Your task to perform on an android device: change text size in settings app Image 0: 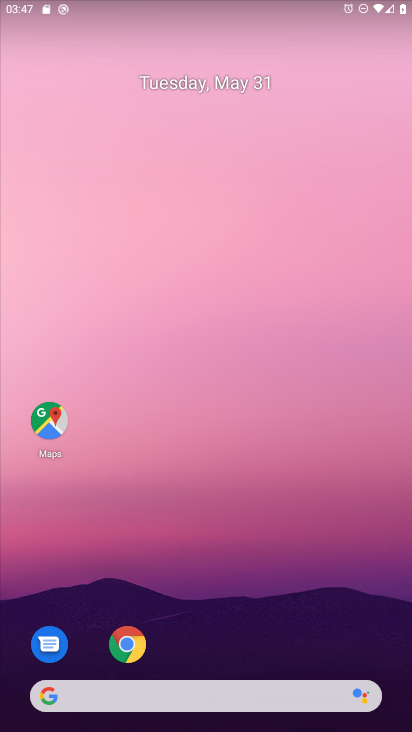
Step 0: drag from (247, 582) to (259, 150)
Your task to perform on an android device: change text size in settings app Image 1: 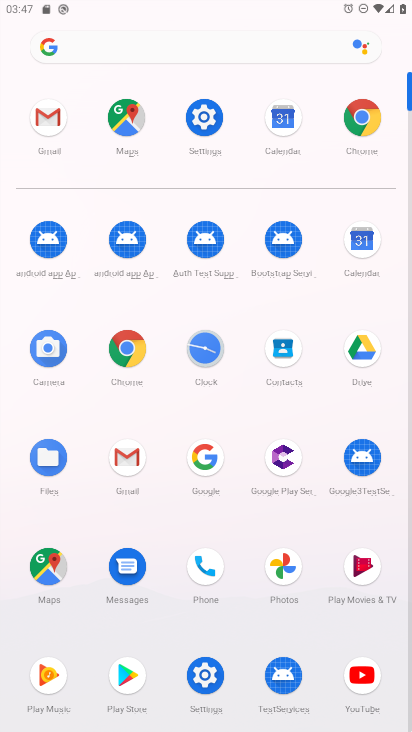
Step 1: click (210, 114)
Your task to perform on an android device: change text size in settings app Image 2: 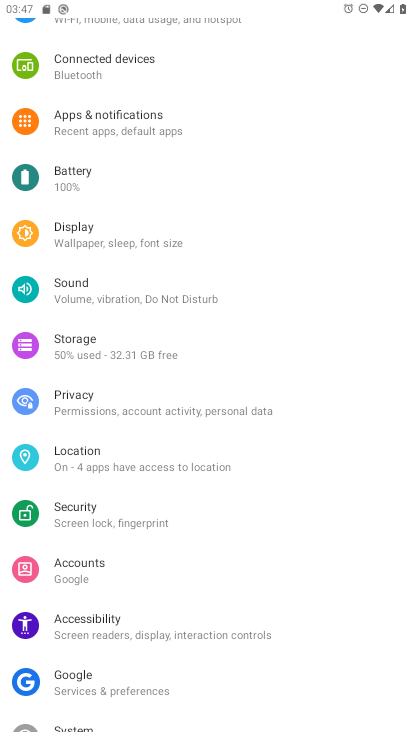
Step 2: drag from (211, 590) to (298, 177)
Your task to perform on an android device: change text size in settings app Image 3: 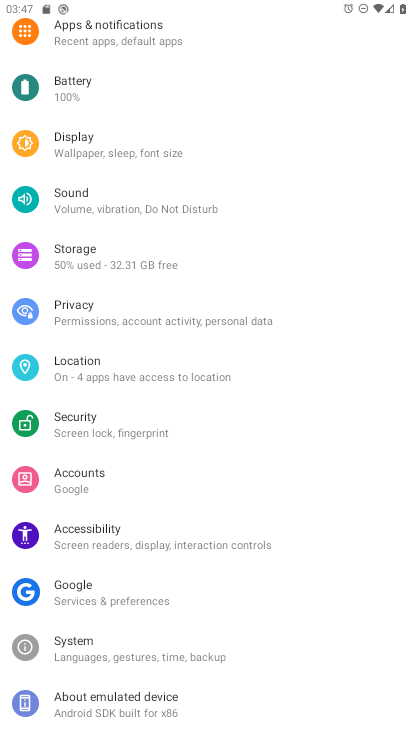
Step 3: drag from (220, 247) to (228, 566)
Your task to perform on an android device: change text size in settings app Image 4: 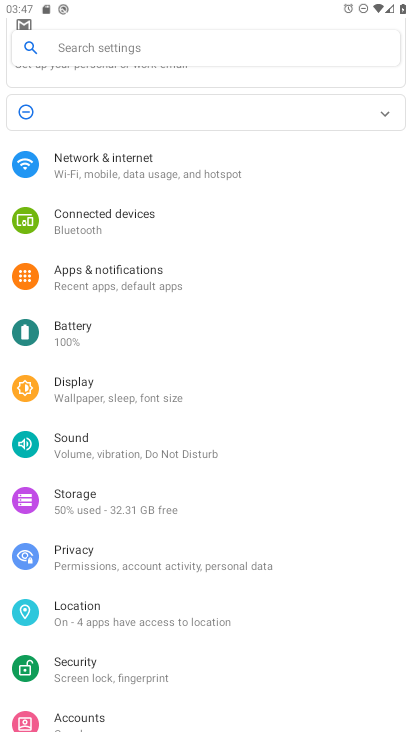
Step 4: click (139, 394)
Your task to perform on an android device: change text size in settings app Image 5: 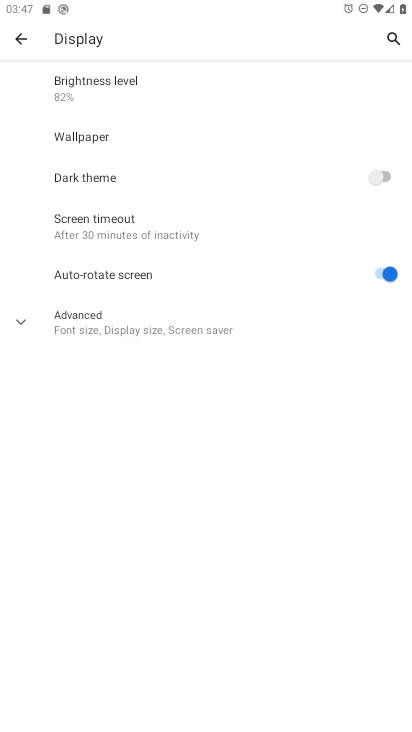
Step 5: click (98, 319)
Your task to perform on an android device: change text size in settings app Image 6: 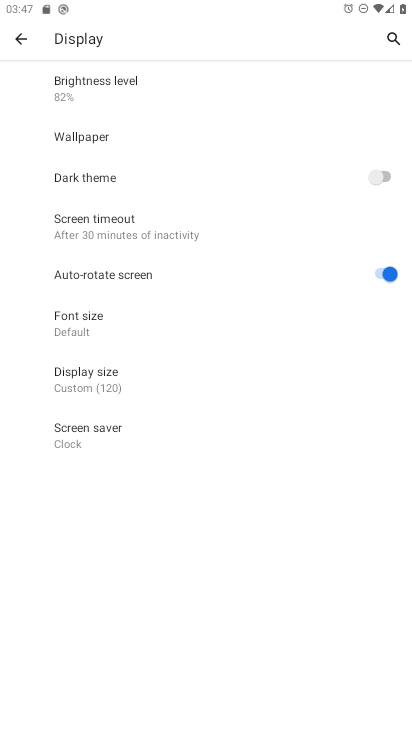
Step 6: click (90, 322)
Your task to perform on an android device: change text size in settings app Image 7: 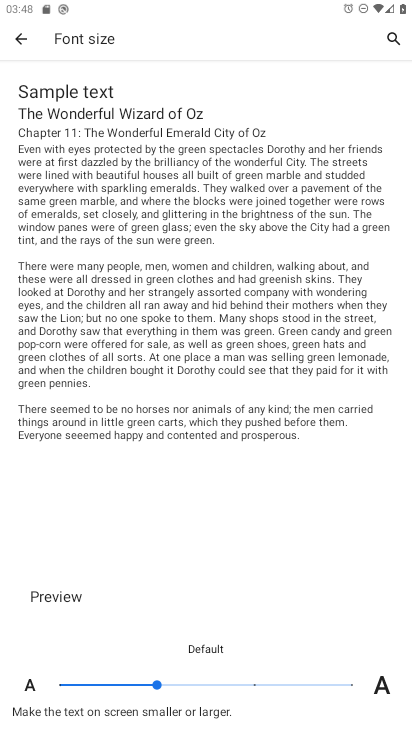
Step 7: click (76, 685)
Your task to perform on an android device: change text size in settings app Image 8: 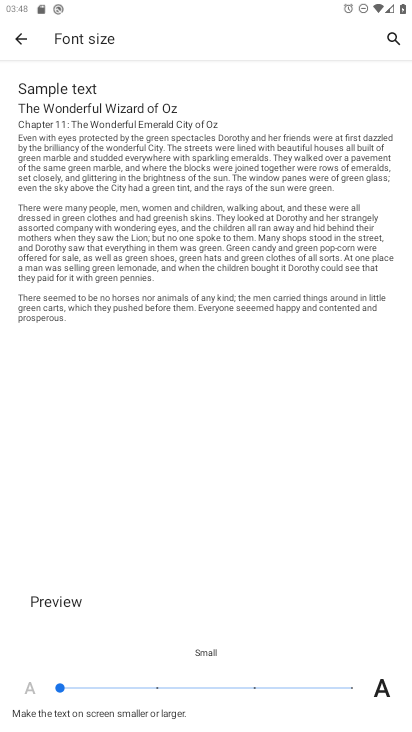
Step 8: task complete